Your task to perform on an android device: turn notification dots off Image 0: 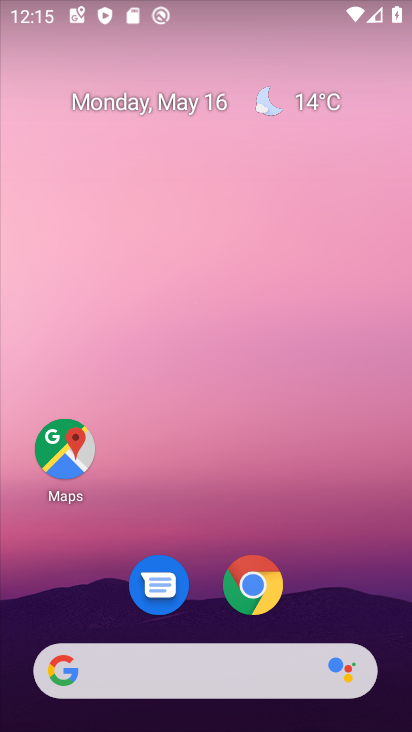
Step 0: drag from (256, 487) to (217, 16)
Your task to perform on an android device: turn notification dots off Image 1: 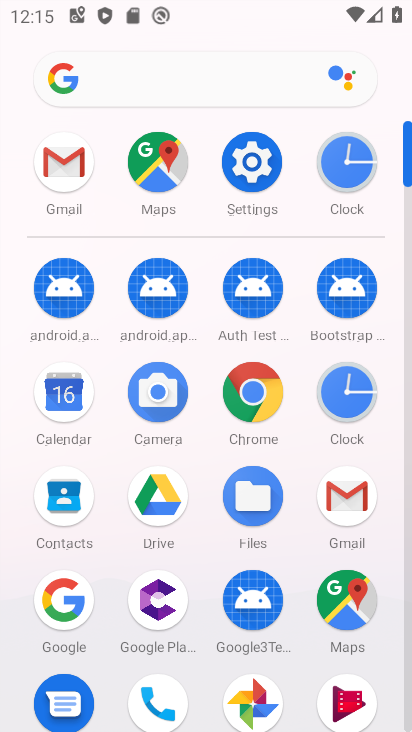
Step 1: click (261, 152)
Your task to perform on an android device: turn notification dots off Image 2: 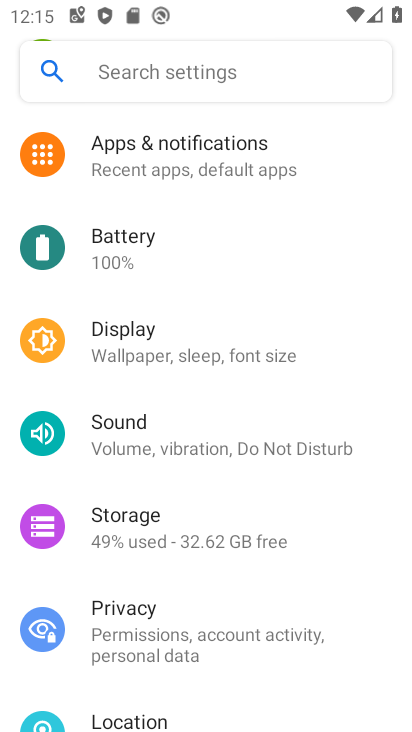
Step 2: click (244, 157)
Your task to perform on an android device: turn notification dots off Image 3: 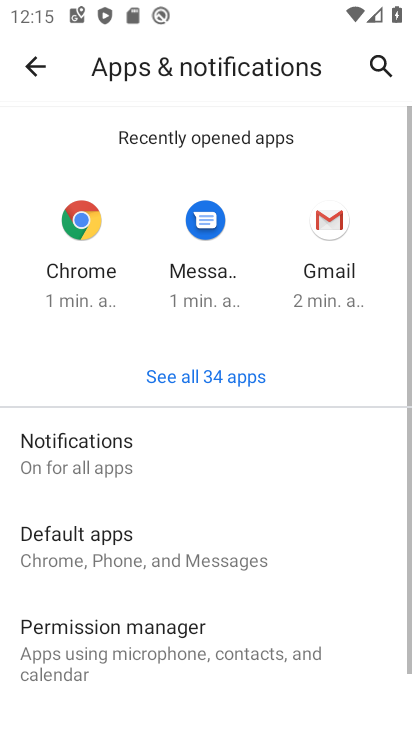
Step 3: click (216, 444)
Your task to perform on an android device: turn notification dots off Image 4: 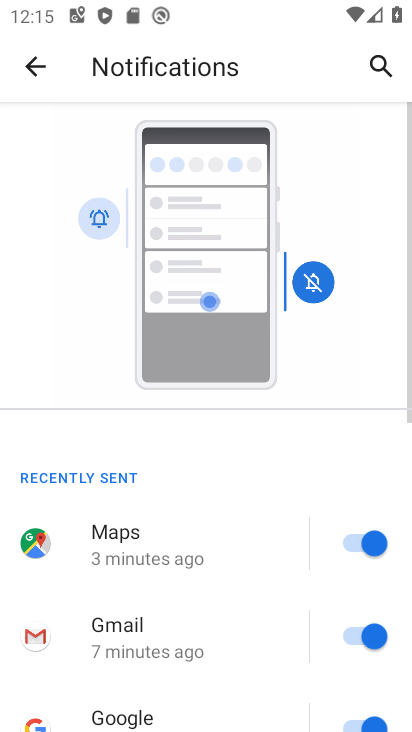
Step 4: drag from (239, 568) to (211, 110)
Your task to perform on an android device: turn notification dots off Image 5: 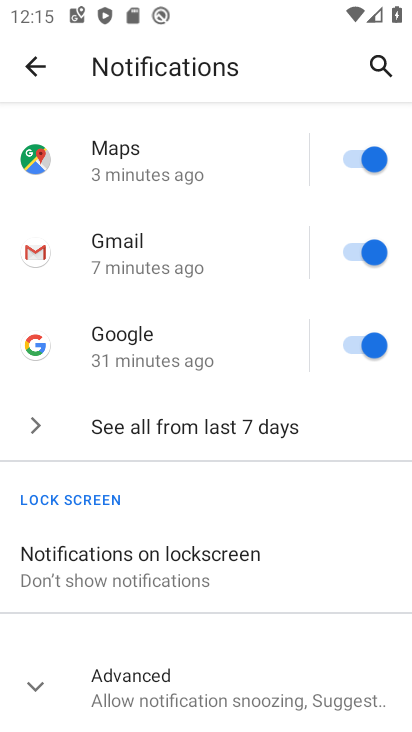
Step 5: click (34, 679)
Your task to perform on an android device: turn notification dots off Image 6: 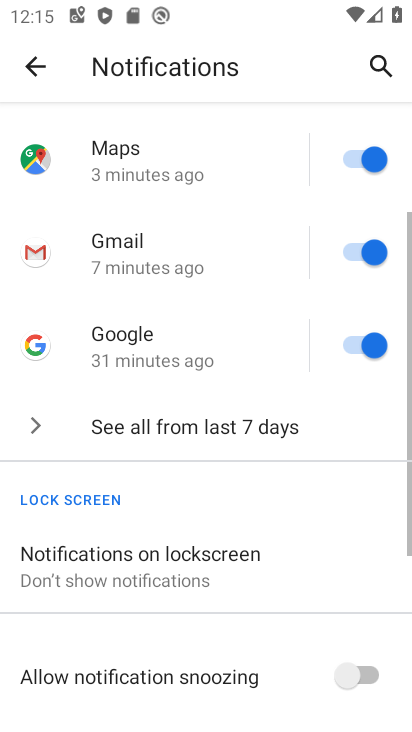
Step 6: drag from (253, 537) to (261, 112)
Your task to perform on an android device: turn notification dots off Image 7: 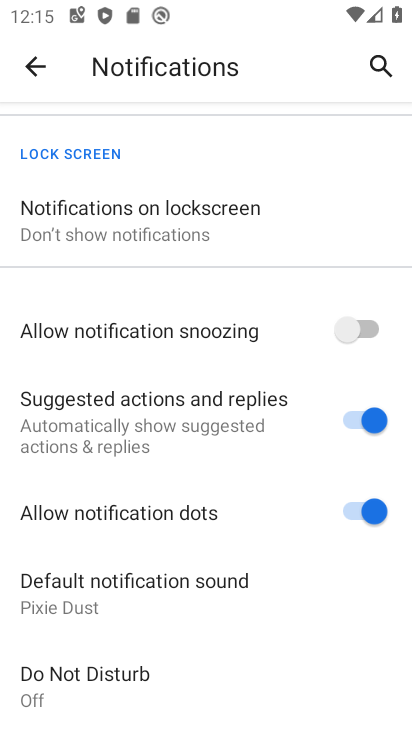
Step 7: click (352, 499)
Your task to perform on an android device: turn notification dots off Image 8: 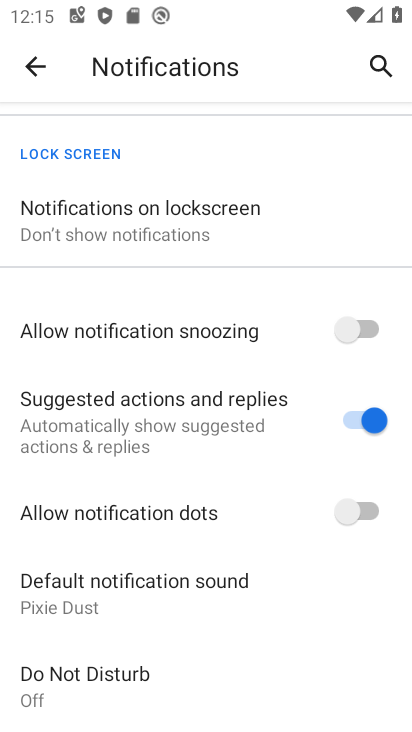
Step 8: task complete